Your task to perform on an android device: change the clock display to show seconds Image 0: 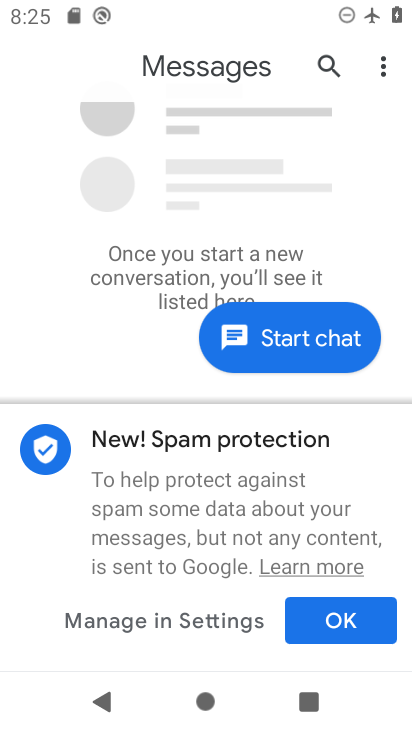
Step 0: press home button
Your task to perform on an android device: change the clock display to show seconds Image 1: 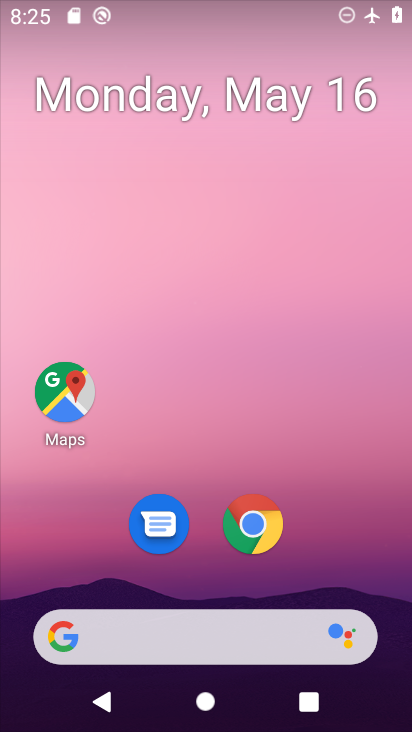
Step 1: drag from (298, 526) to (285, 17)
Your task to perform on an android device: change the clock display to show seconds Image 2: 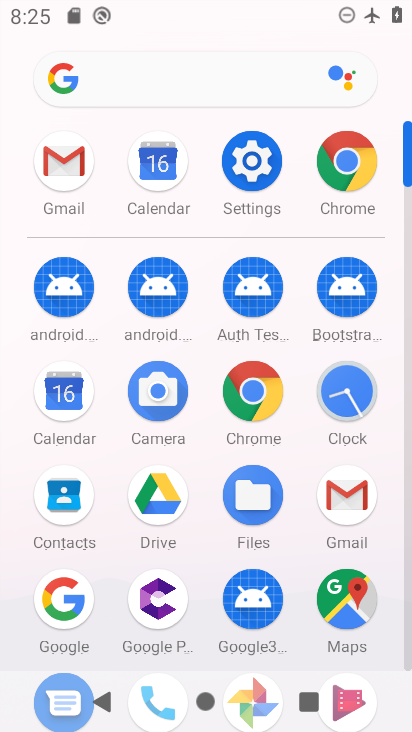
Step 2: click (342, 391)
Your task to perform on an android device: change the clock display to show seconds Image 3: 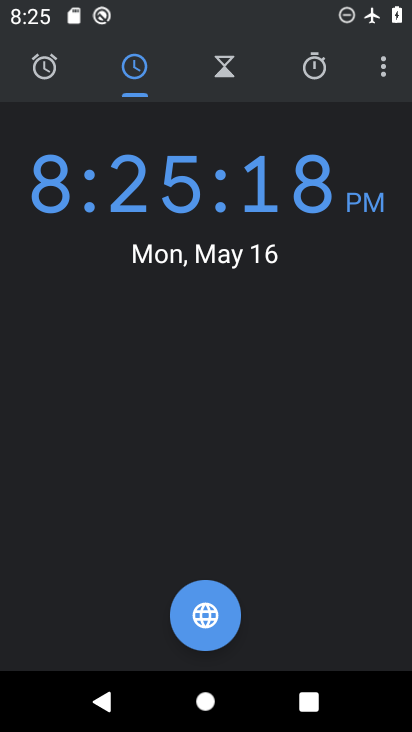
Step 3: click (382, 73)
Your task to perform on an android device: change the clock display to show seconds Image 4: 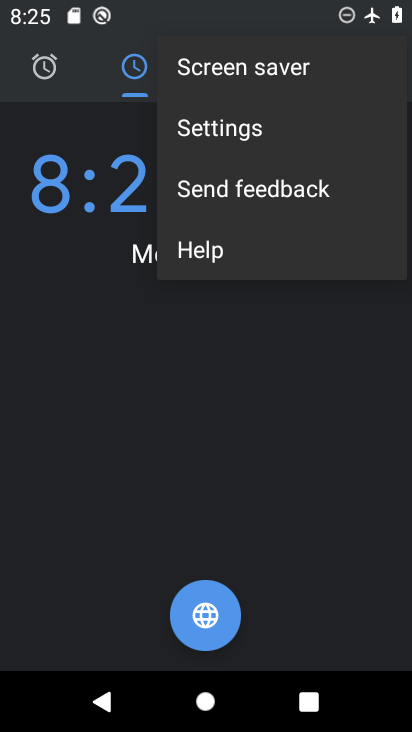
Step 4: click (309, 128)
Your task to perform on an android device: change the clock display to show seconds Image 5: 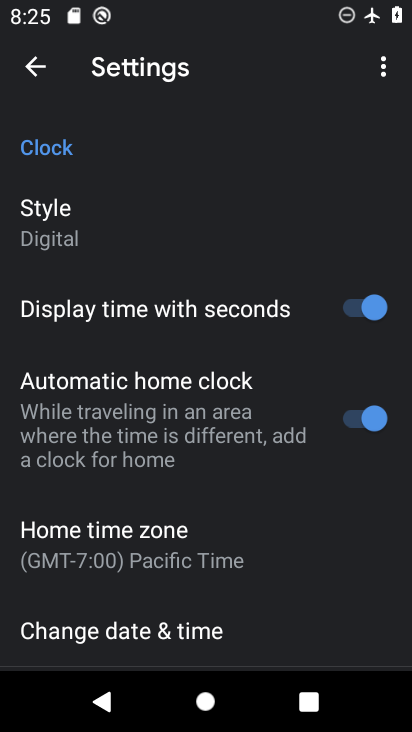
Step 5: task complete